Your task to perform on an android device: toggle location history Image 0: 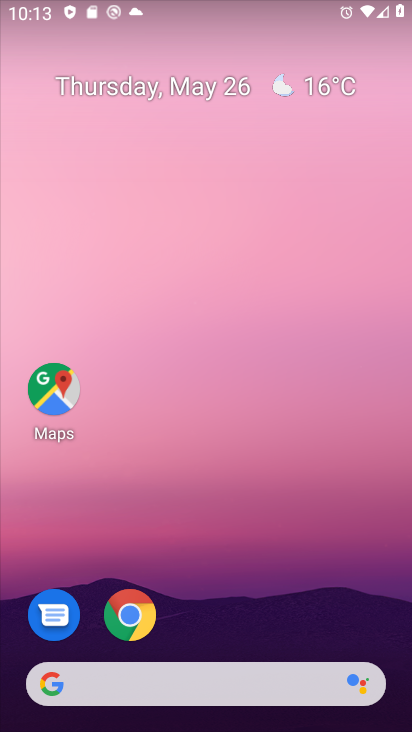
Step 0: press home button
Your task to perform on an android device: toggle location history Image 1: 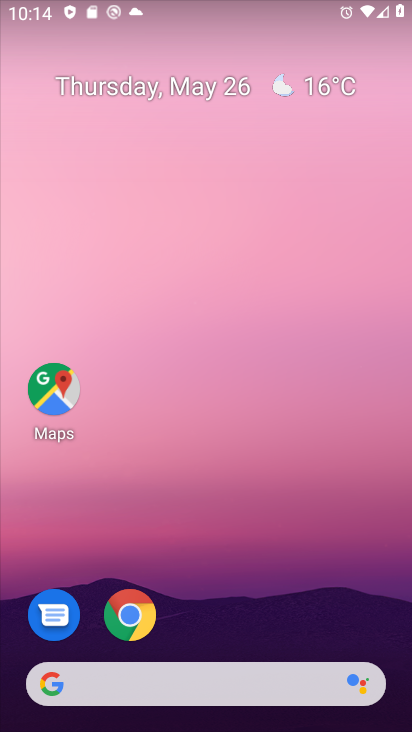
Step 1: drag from (254, 721) to (236, 15)
Your task to perform on an android device: toggle location history Image 2: 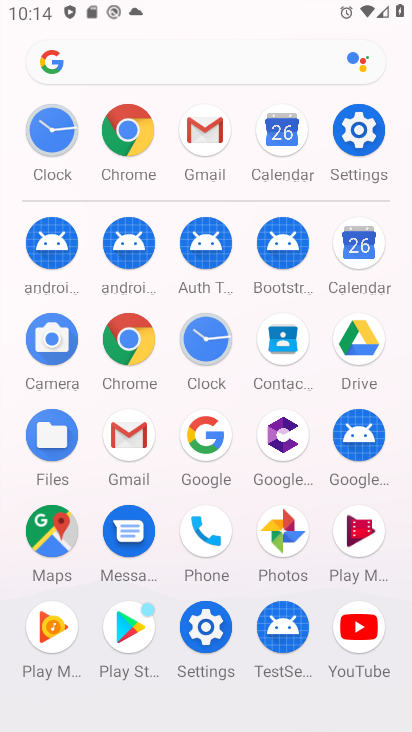
Step 2: click (368, 147)
Your task to perform on an android device: toggle location history Image 3: 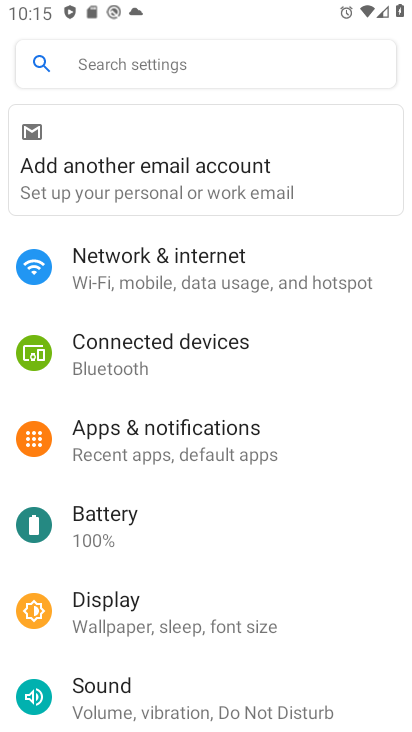
Step 3: click (155, 40)
Your task to perform on an android device: toggle location history Image 4: 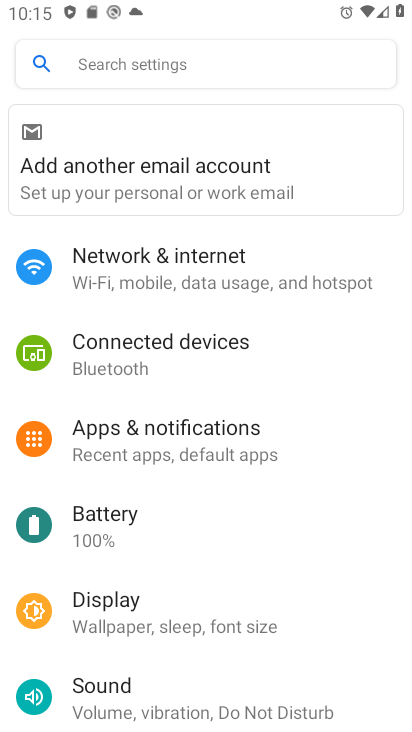
Step 4: click (172, 66)
Your task to perform on an android device: toggle location history Image 5: 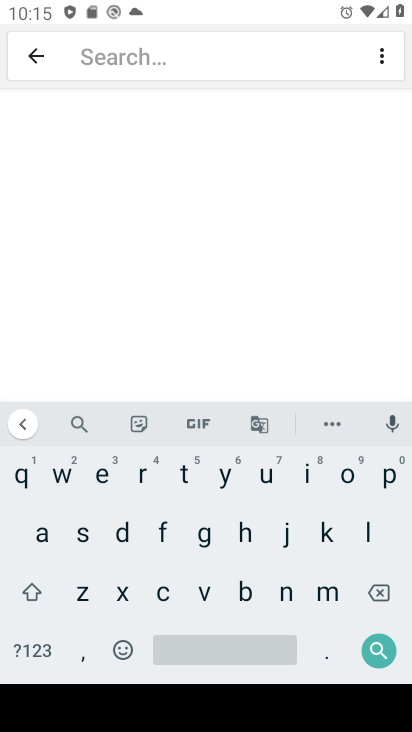
Step 5: click (375, 553)
Your task to perform on an android device: toggle location history Image 6: 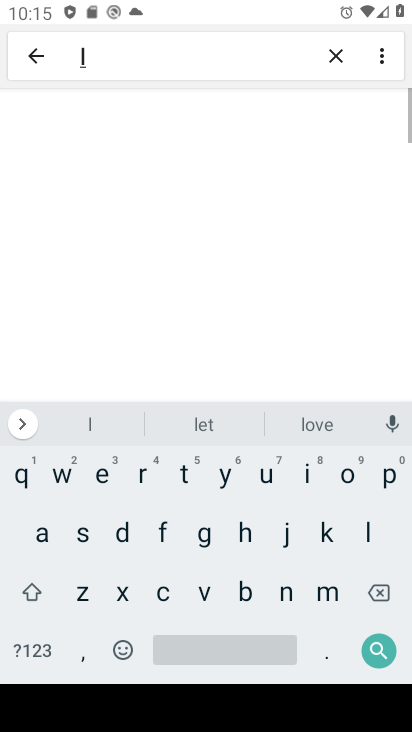
Step 6: click (346, 476)
Your task to perform on an android device: toggle location history Image 7: 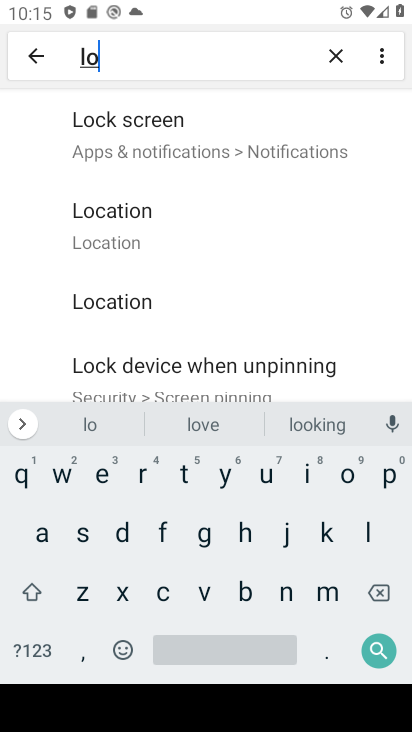
Step 7: click (154, 216)
Your task to perform on an android device: toggle location history Image 8: 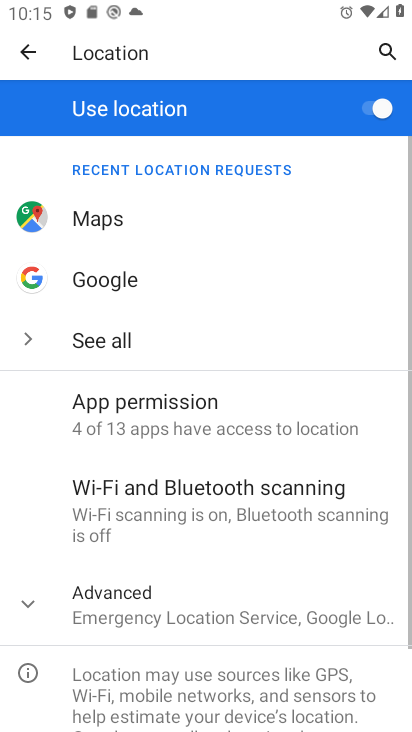
Step 8: task complete